Your task to perform on an android device: Go to location settings Image 0: 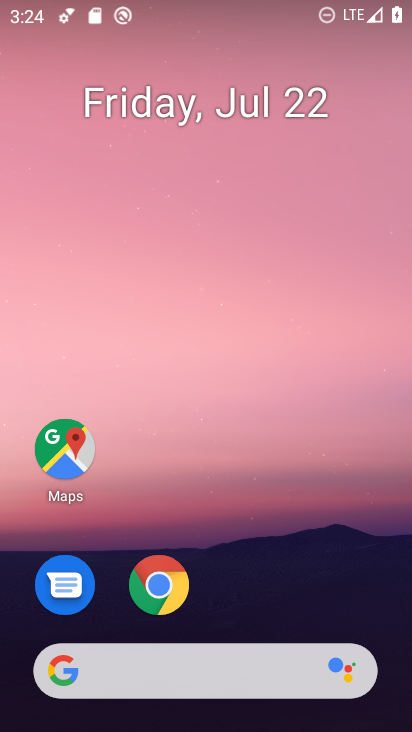
Step 0: drag from (285, 578) to (336, 9)
Your task to perform on an android device: Go to location settings Image 1: 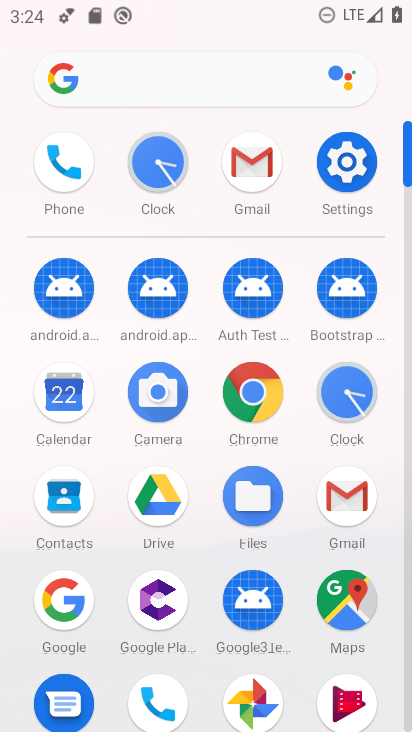
Step 1: click (352, 154)
Your task to perform on an android device: Go to location settings Image 2: 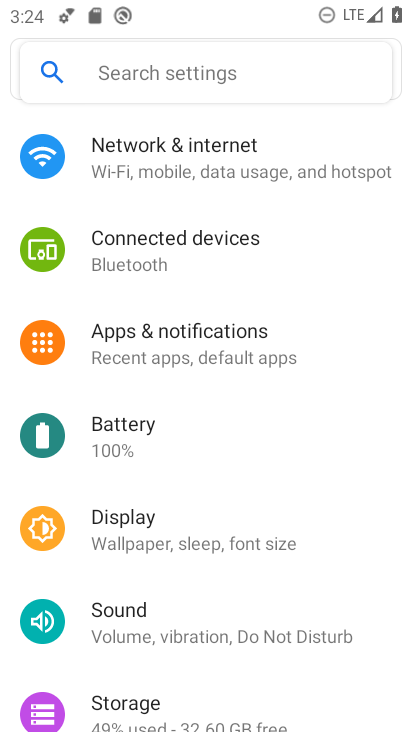
Step 2: drag from (224, 480) to (303, 125)
Your task to perform on an android device: Go to location settings Image 3: 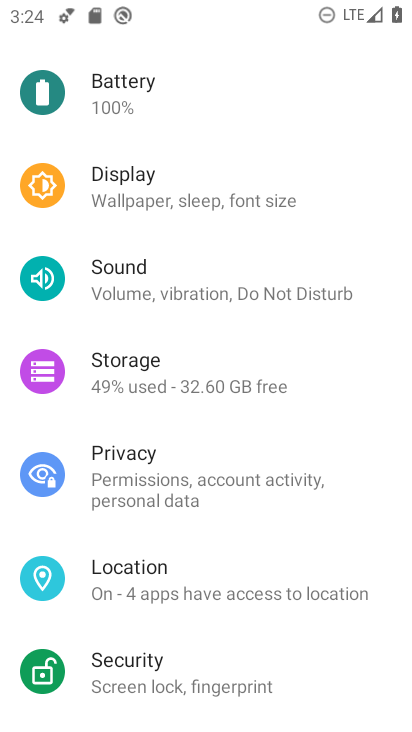
Step 3: click (191, 577)
Your task to perform on an android device: Go to location settings Image 4: 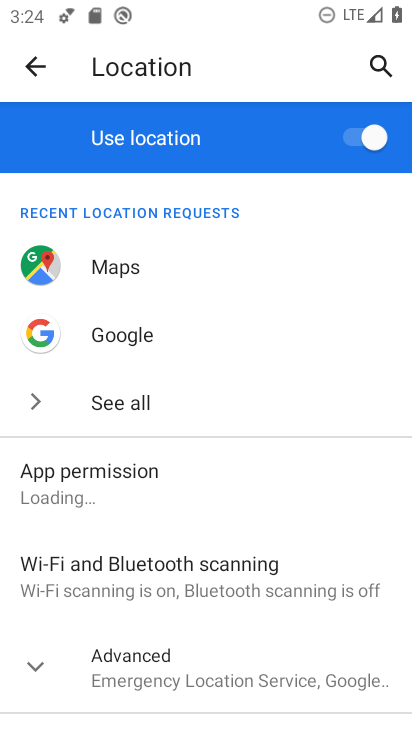
Step 4: task complete